Your task to perform on an android device: Do I have any events this weekend? Image 0: 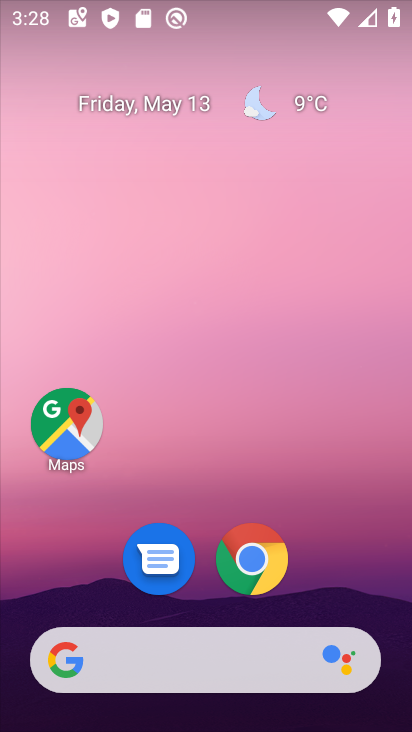
Step 0: drag from (389, 622) to (341, 57)
Your task to perform on an android device: Do I have any events this weekend? Image 1: 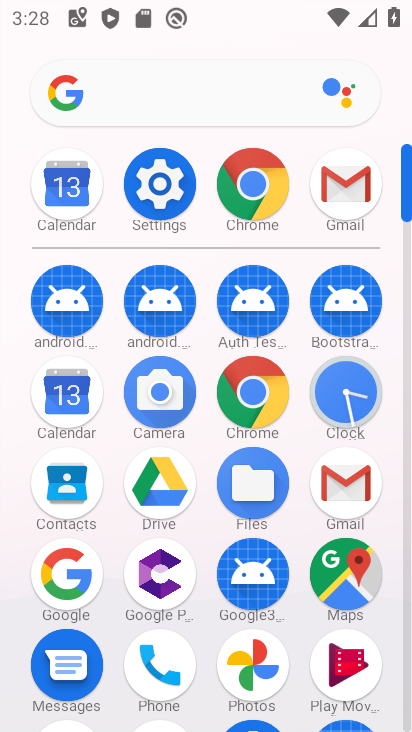
Step 1: click (406, 698)
Your task to perform on an android device: Do I have any events this weekend? Image 2: 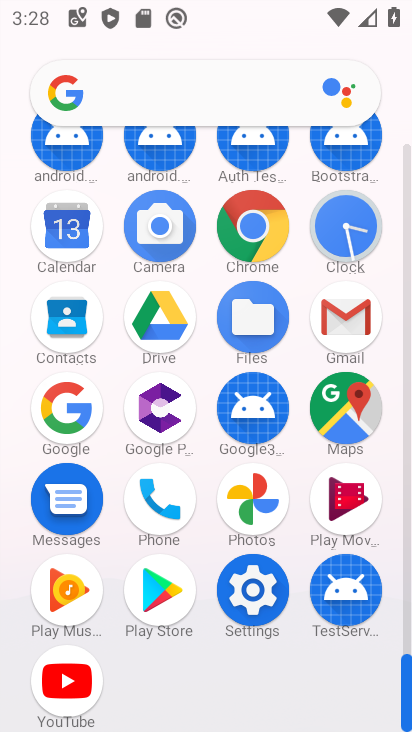
Step 2: click (67, 222)
Your task to perform on an android device: Do I have any events this weekend? Image 3: 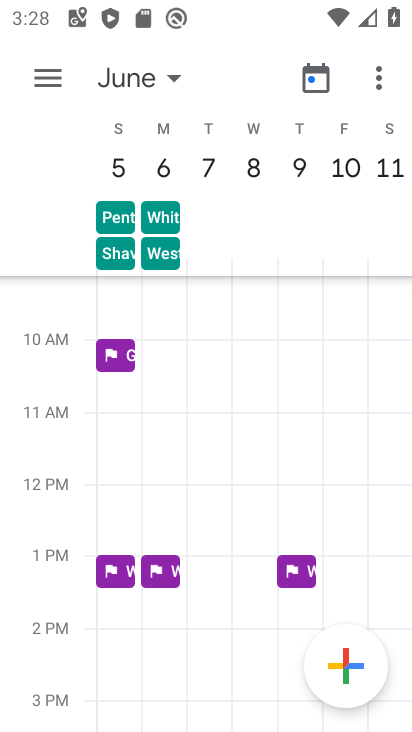
Step 3: click (48, 79)
Your task to perform on an android device: Do I have any events this weekend? Image 4: 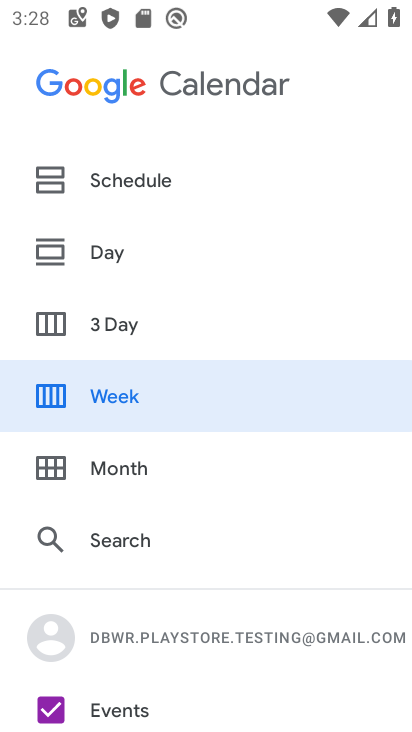
Step 4: click (127, 414)
Your task to perform on an android device: Do I have any events this weekend? Image 5: 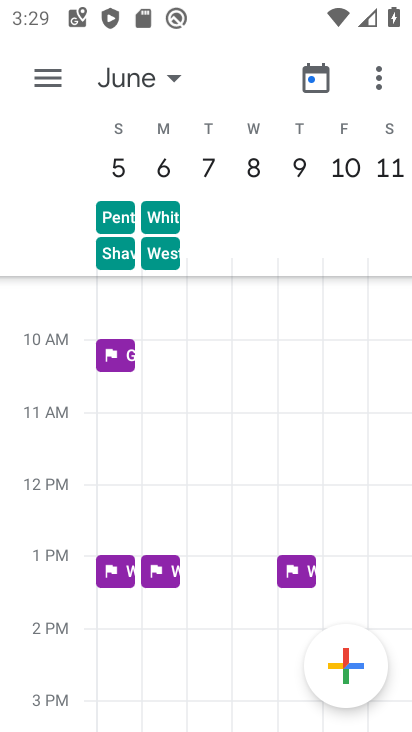
Step 5: click (173, 79)
Your task to perform on an android device: Do I have any events this weekend? Image 6: 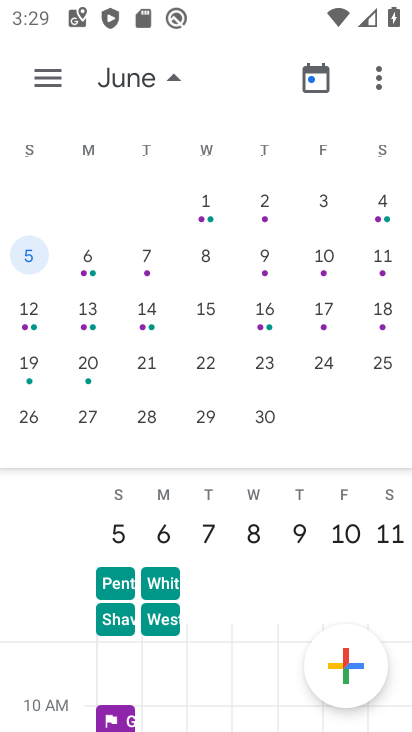
Step 6: drag from (18, 312) to (410, 263)
Your task to perform on an android device: Do I have any events this weekend? Image 7: 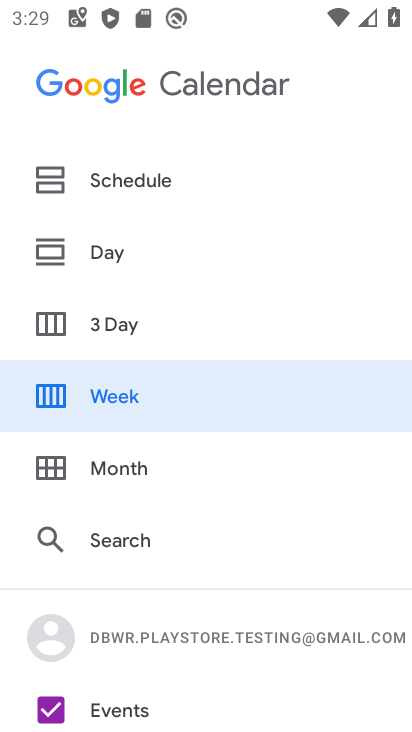
Step 7: click (262, 373)
Your task to perform on an android device: Do I have any events this weekend? Image 8: 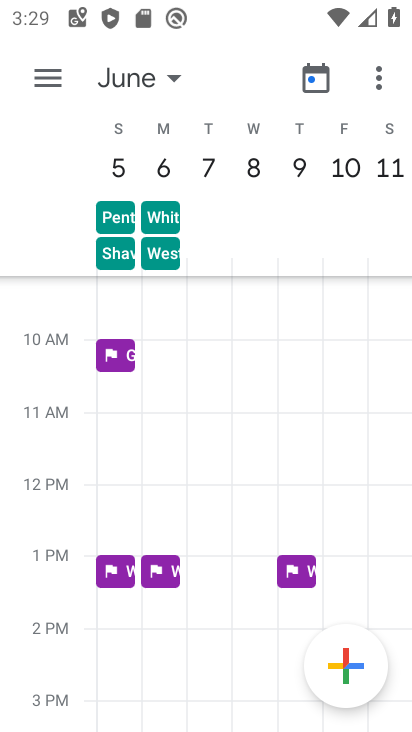
Step 8: click (177, 76)
Your task to perform on an android device: Do I have any events this weekend? Image 9: 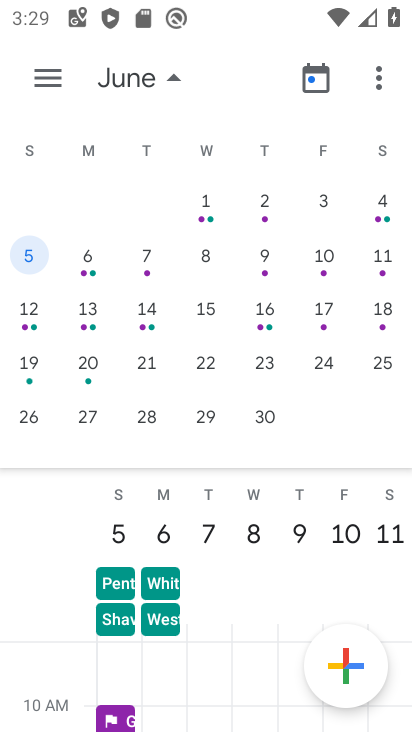
Step 9: drag from (87, 333) to (344, 304)
Your task to perform on an android device: Do I have any events this weekend? Image 10: 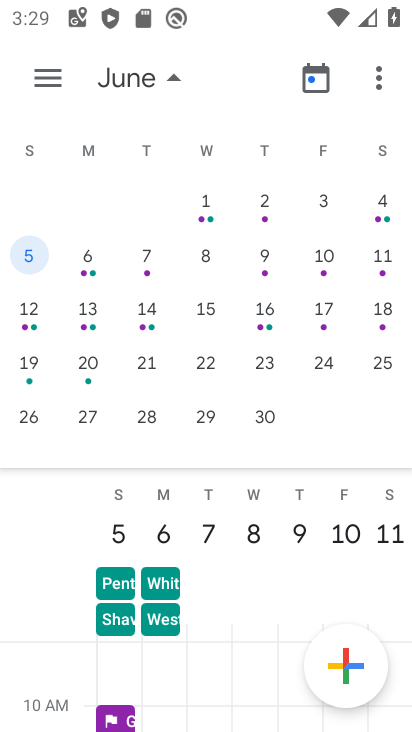
Step 10: drag from (33, 316) to (329, 254)
Your task to perform on an android device: Do I have any events this weekend? Image 11: 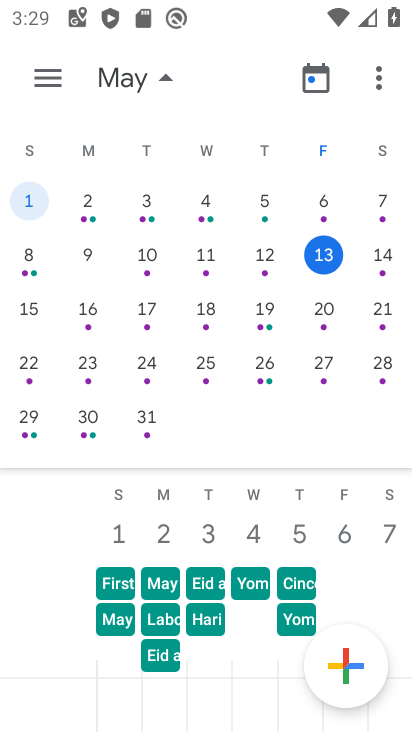
Step 11: click (331, 253)
Your task to perform on an android device: Do I have any events this weekend? Image 12: 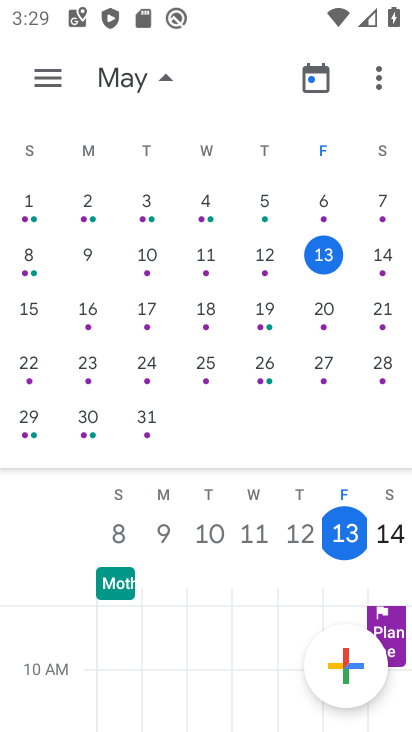
Step 12: task complete